Your task to perform on an android device: Go to ESPN.com Image 0: 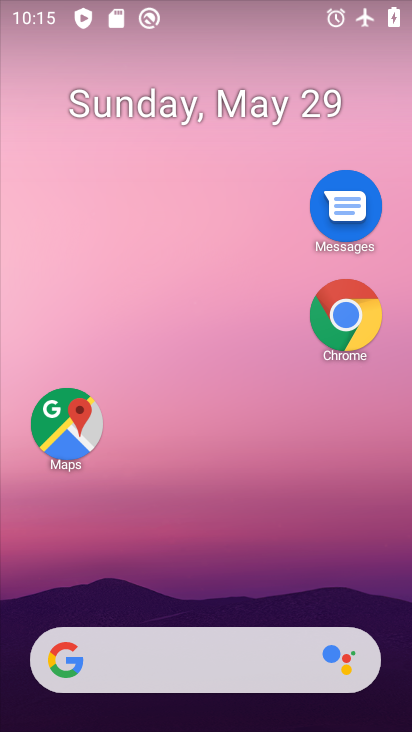
Step 0: click (352, 326)
Your task to perform on an android device: Go to ESPN.com Image 1: 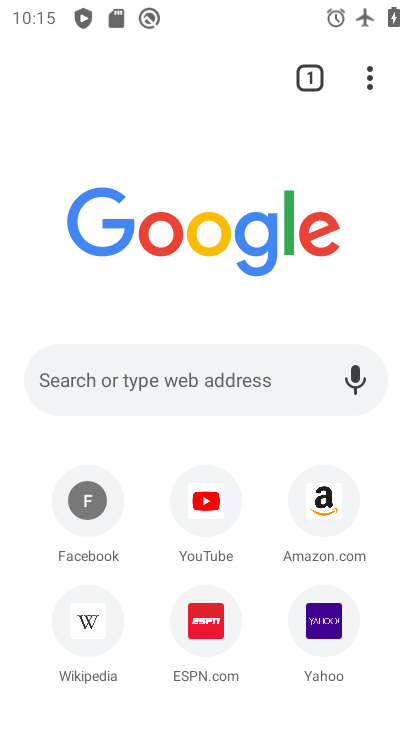
Step 1: click (204, 650)
Your task to perform on an android device: Go to ESPN.com Image 2: 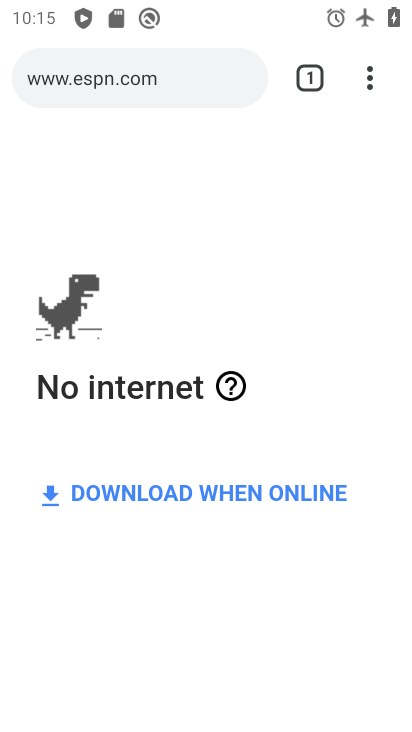
Step 2: task complete